Your task to perform on an android device: Go to Amazon Image 0: 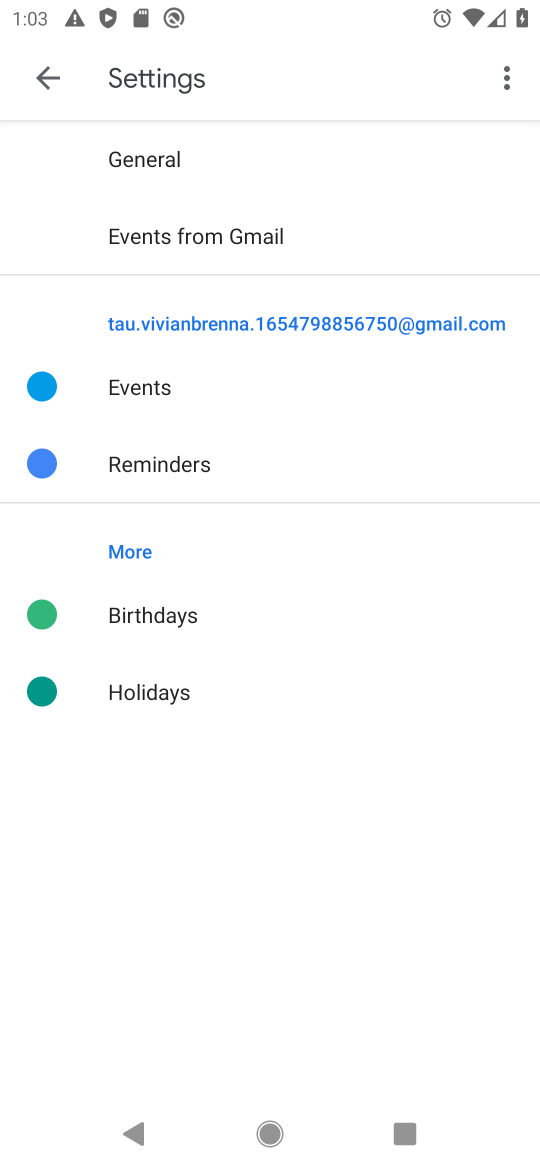
Step 0: task complete